Your task to perform on an android device: turn on airplane mode Image 0: 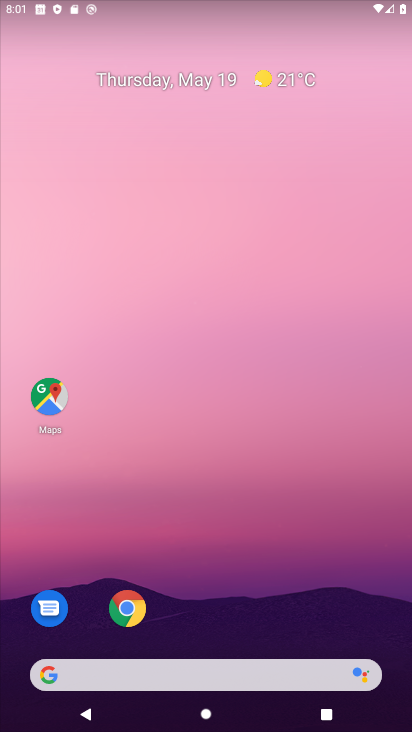
Step 0: drag from (212, 536) to (190, 105)
Your task to perform on an android device: turn on airplane mode Image 1: 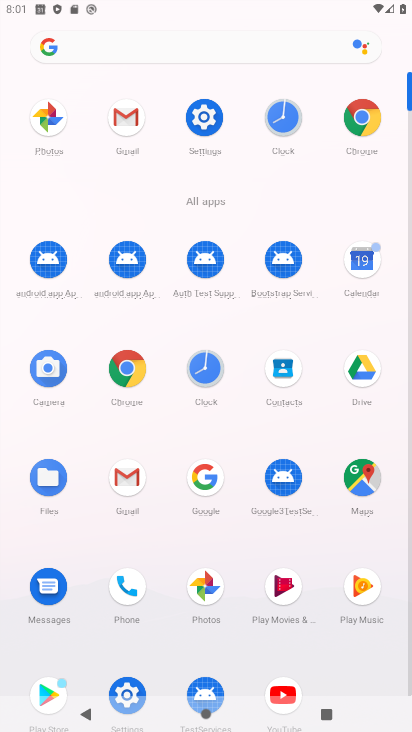
Step 1: click (206, 118)
Your task to perform on an android device: turn on airplane mode Image 2: 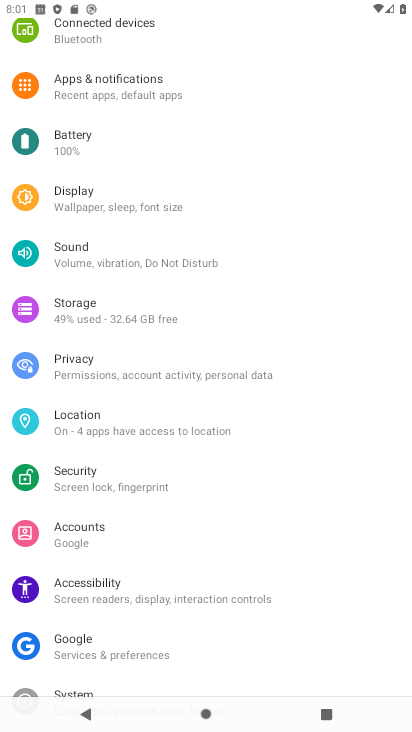
Step 2: drag from (162, 141) to (280, 614)
Your task to perform on an android device: turn on airplane mode Image 3: 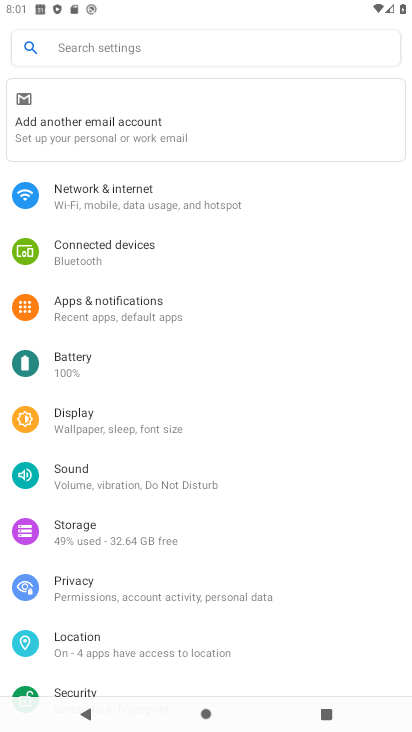
Step 3: click (103, 192)
Your task to perform on an android device: turn on airplane mode Image 4: 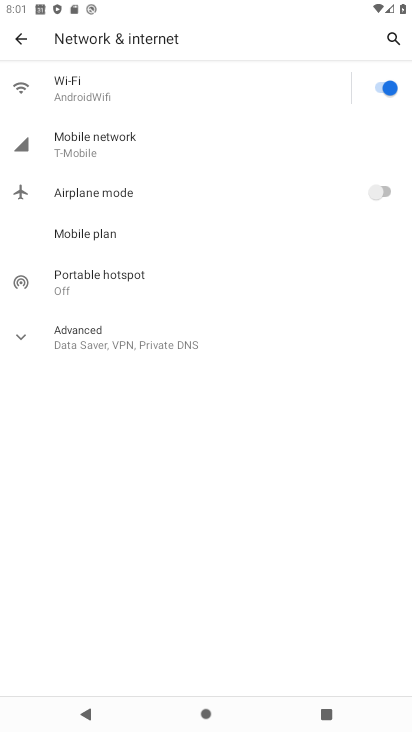
Step 4: click (389, 192)
Your task to perform on an android device: turn on airplane mode Image 5: 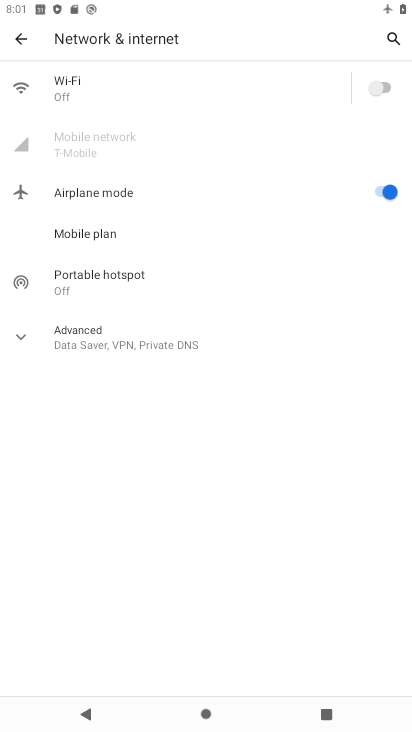
Step 5: task complete